Your task to perform on an android device: What's the weather today? Image 0: 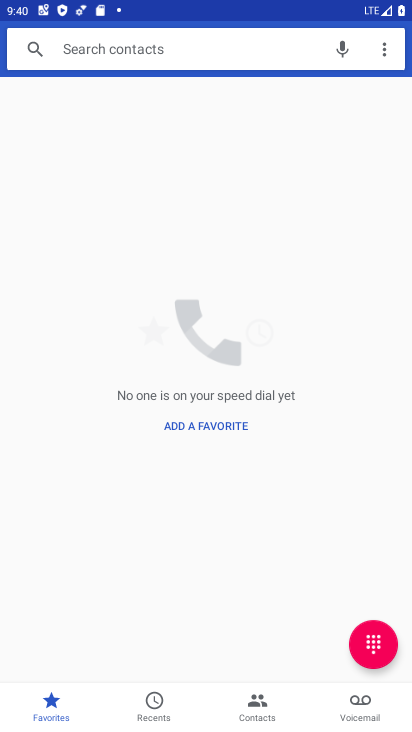
Step 0: press back button
Your task to perform on an android device: What's the weather today? Image 1: 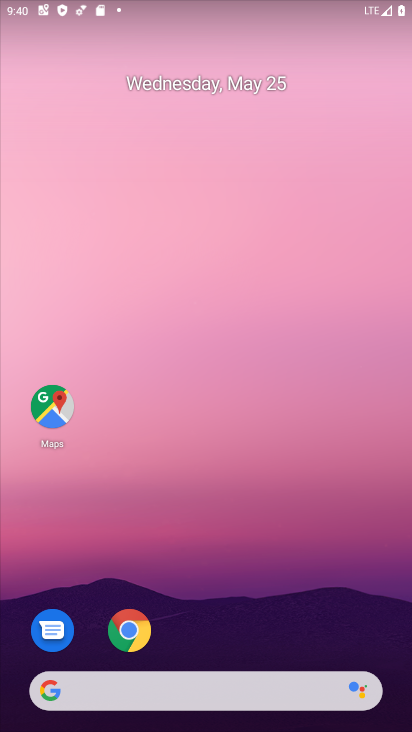
Step 1: click (217, 697)
Your task to perform on an android device: What's the weather today? Image 2: 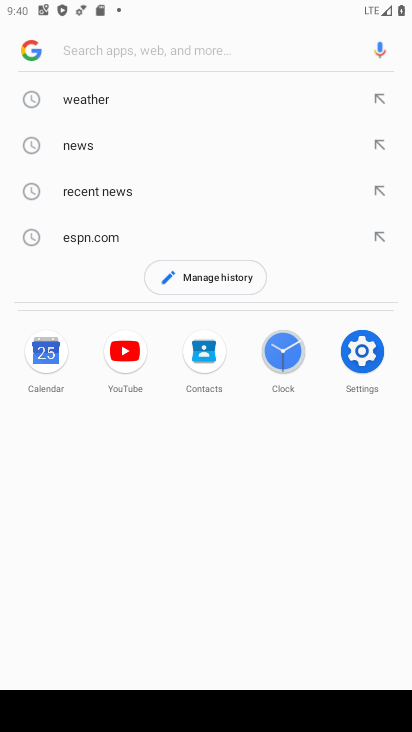
Step 2: click (112, 95)
Your task to perform on an android device: What's the weather today? Image 3: 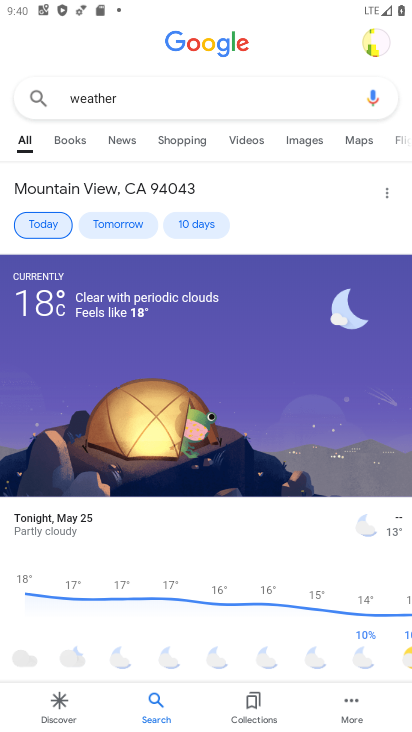
Step 3: task complete